Your task to perform on an android device: How much does the LG TV cost? Image 0: 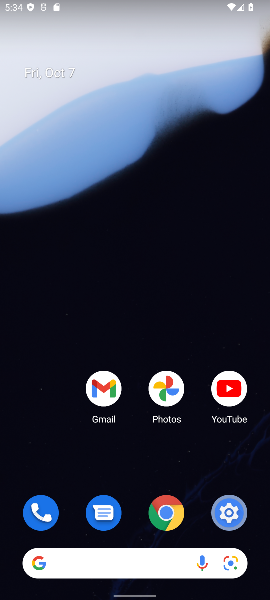
Step 0: click (105, 556)
Your task to perform on an android device: How much does the LG TV cost? Image 1: 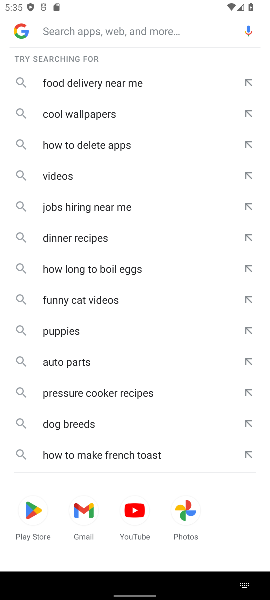
Step 1: type "how much does the LG TV cost?"
Your task to perform on an android device: How much does the LG TV cost? Image 2: 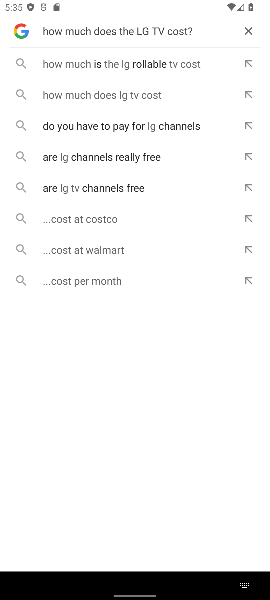
Step 2: click (112, 96)
Your task to perform on an android device: How much does the LG TV cost? Image 3: 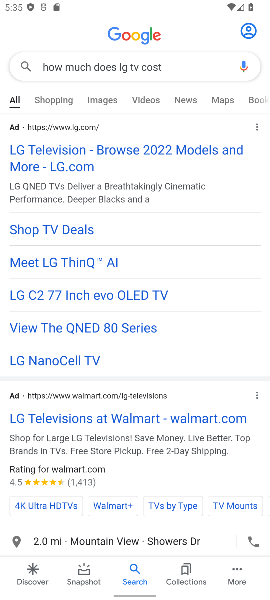
Step 3: click (77, 147)
Your task to perform on an android device: How much does the LG TV cost? Image 4: 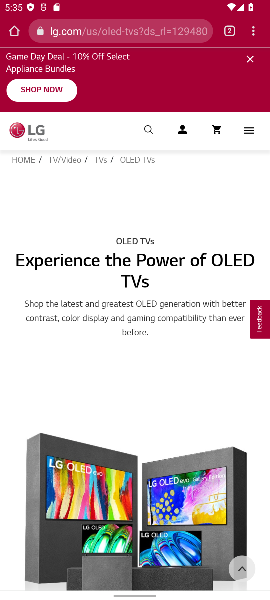
Step 4: task complete